Your task to perform on an android device: snooze an email in the gmail app Image 0: 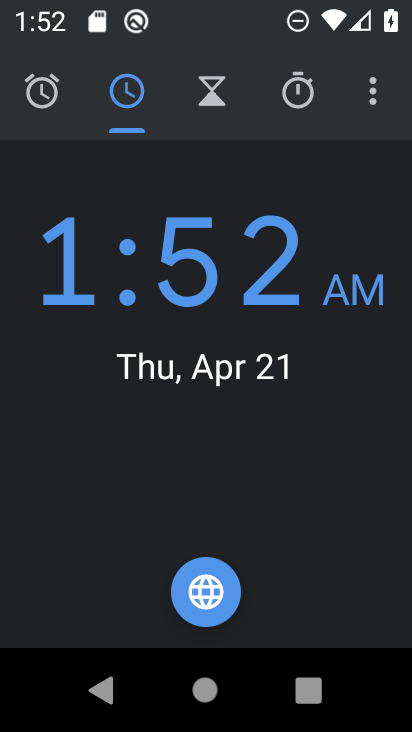
Step 0: press home button
Your task to perform on an android device: snooze an email in the gmail app Image 1: 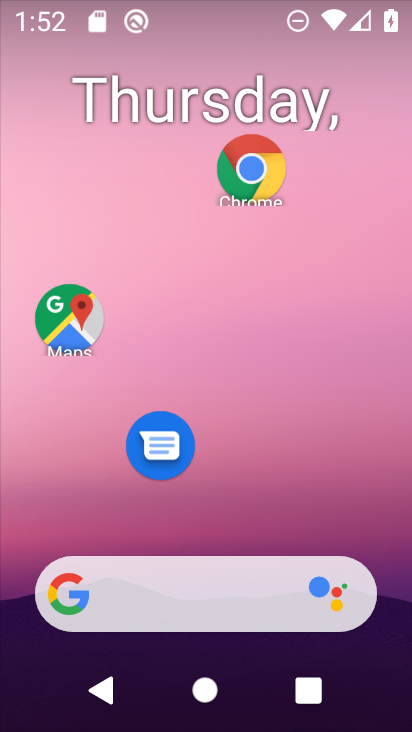
Step 1: drag from (288, 637) to (357, 132)
Your task to perform on an android device: snooze an email in the gmail app Image 2: 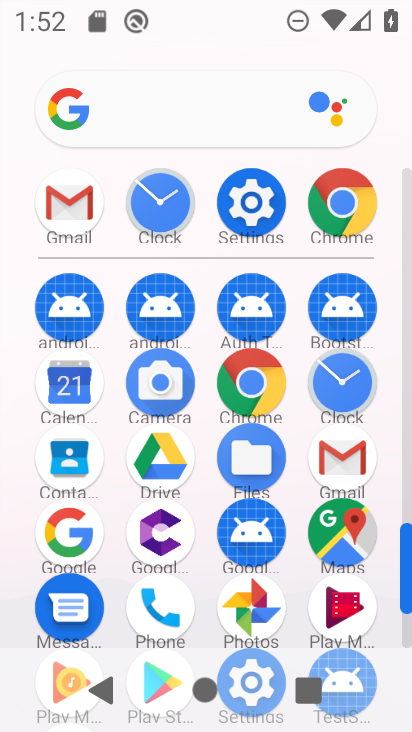
Step 2: click (362, 447)
Your task to perform on an android device: snooze an email in the gmail app Image 3: 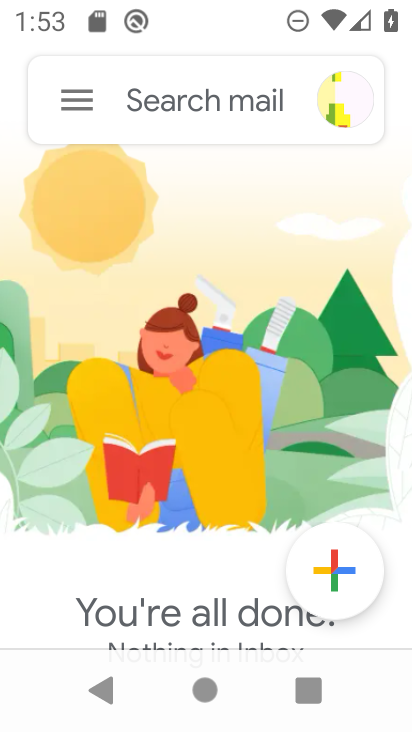
Step 3: click (82, 99)
Your task to perform on an android device: snooze an email in the gmail app Image 4: 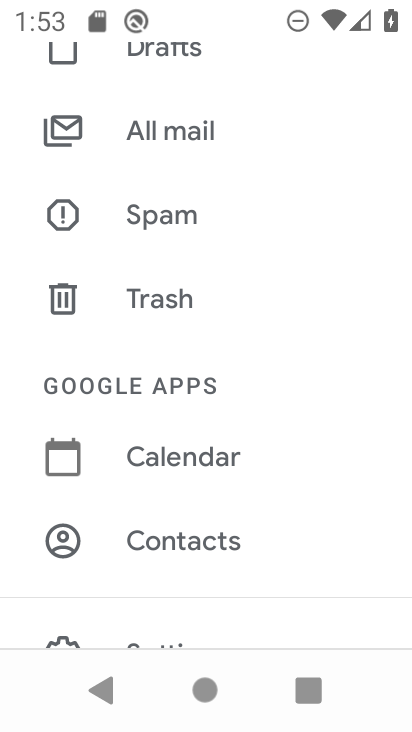
Step 4: drag from (138, 99) to (189, 355)
Your task to perform on an android device: snooze an email in the gmail app Image 5: 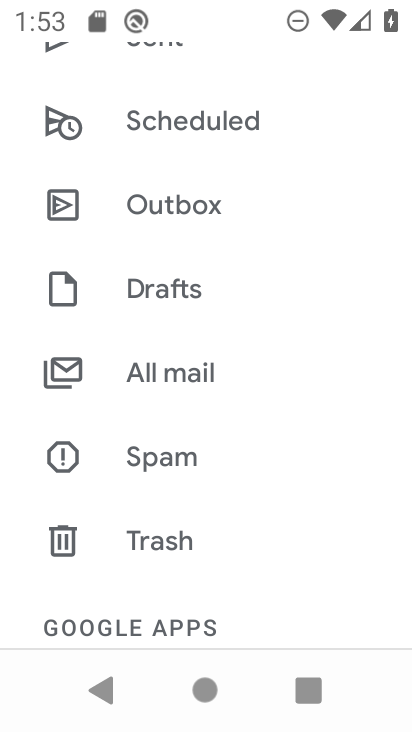
Step 5: drag from (191, 115) to (223, 286)
Your task to perform on an android device: snooze an email in the gmail app Image 6: 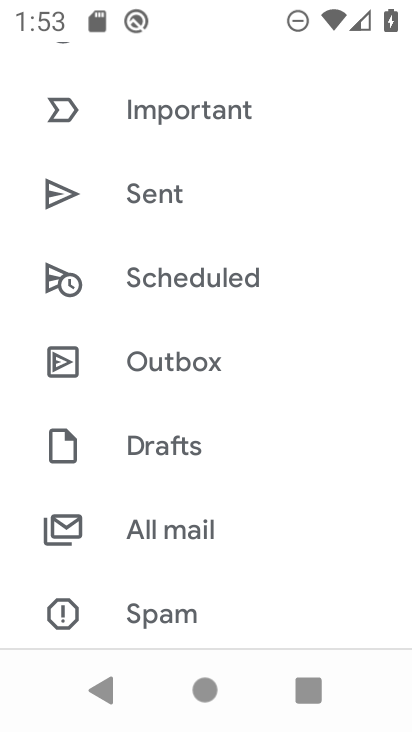
Step 6: drag from (160, 124) to (193, 316)
Your task to perform on an android device: snooze an email in the gmail app Image 7: 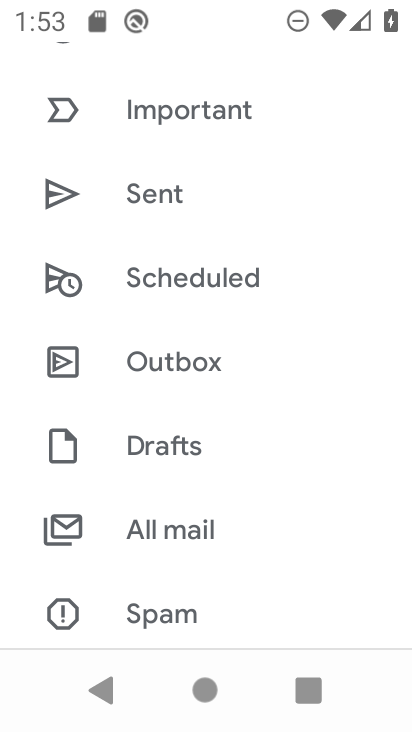
Step 7: drag from (157, 135) to (175, 280)
Your task to perform on an android device: snooze an email in the gmail app Image 8: 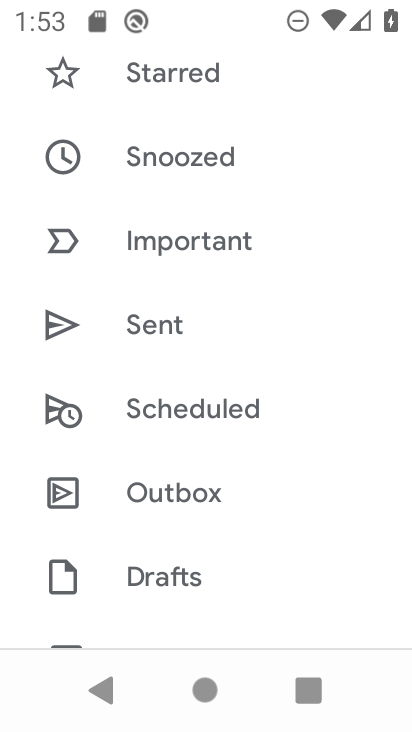
Step 8: click (149, 163)
Your task to perform on an android device: snooze an email in the gmail app Image 9: 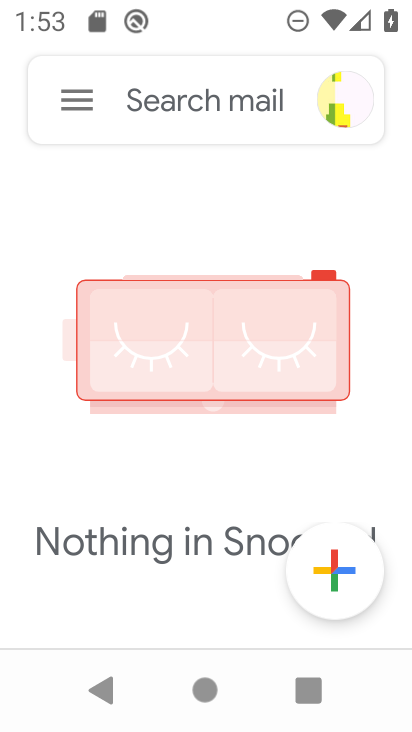
Step 9: task complete